Your task to perform on an android device: turn on showing notifications on the lock screen Image 0: 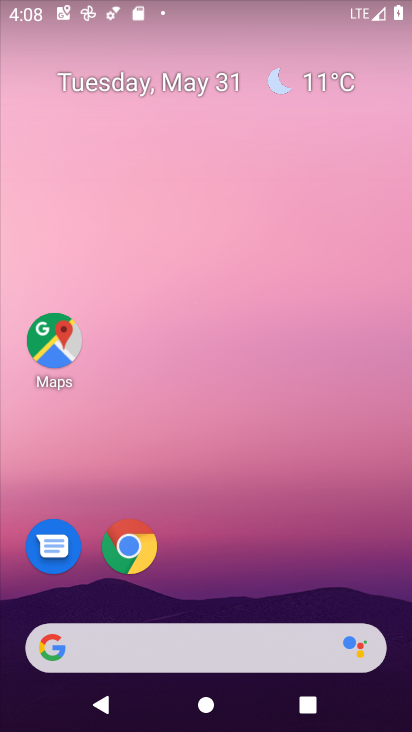
Step 0: drag from (248, 498) to (104, 17)
Your task to perform on an android device: turn on showing notifications on the lock screen Image 1: 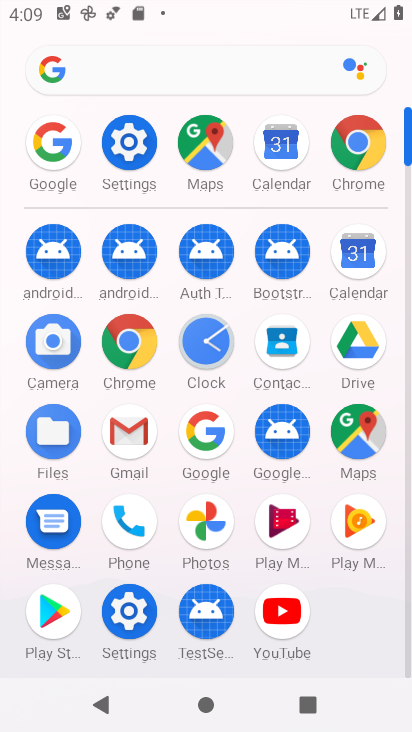
Step 1: click (110, 145)
Your task to perform on an android device: turn on showing notifications on the lock screen Image 2: 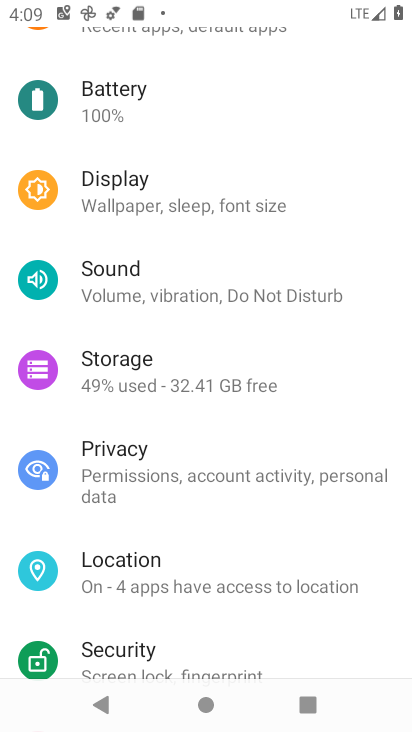
Step 2: drag from (191, 271) to (214, 600)
Your task to perform on an android device: turn on showing notifications on the lock screen Image 3: 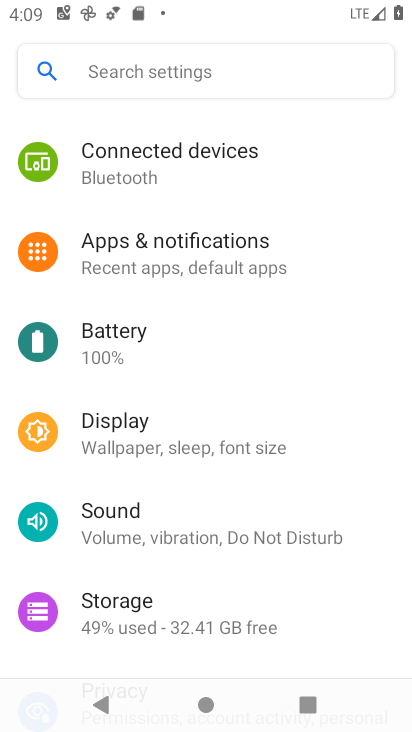
Step 3: click (160, 248)
Your task to perform on an android device: turn on showing notifications on the lock screen Image 4: 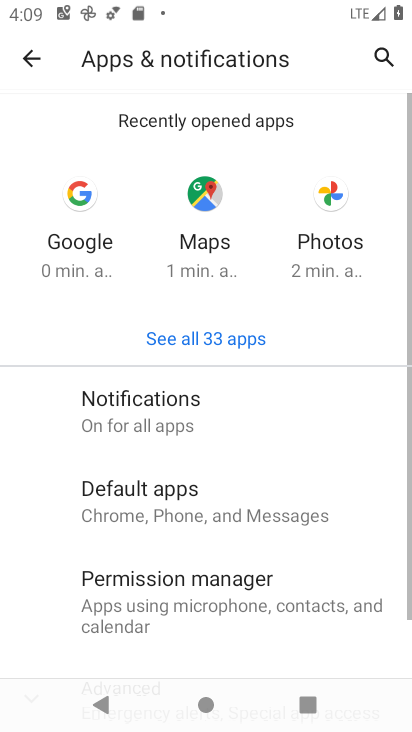
Step 4: click (173, 388)
Your task to perform on an android device: turn on showing notifications on the lock screen Image 5: 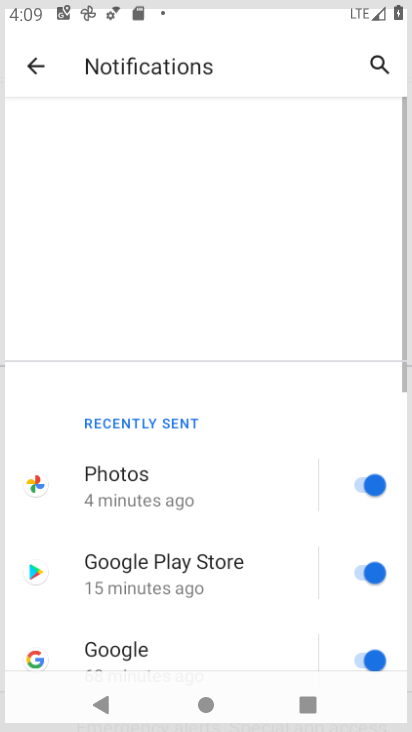
Step 5: drag from (237, 561) to (198, 128)
Your task to perform on an android device: turn on showing notifications on the lock screen Image 6: 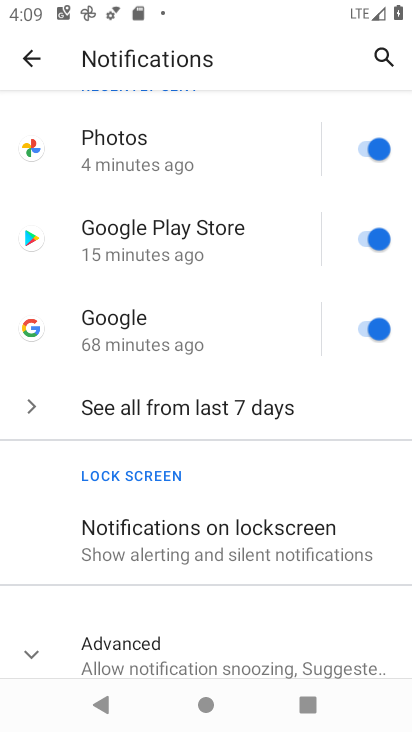
Step 6: click (224, 540)
Your task to perform on an android device: turn on showing notifications on the lock screen Image 7: 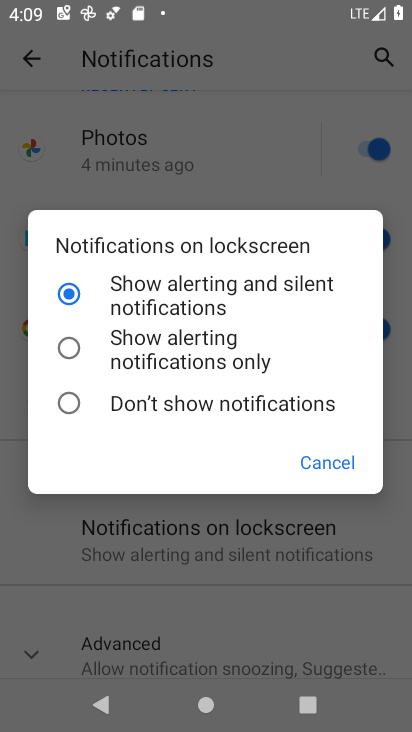
Step 7: task complete